Your task to perform on an android device: find which apps use the phone's location Image 0: 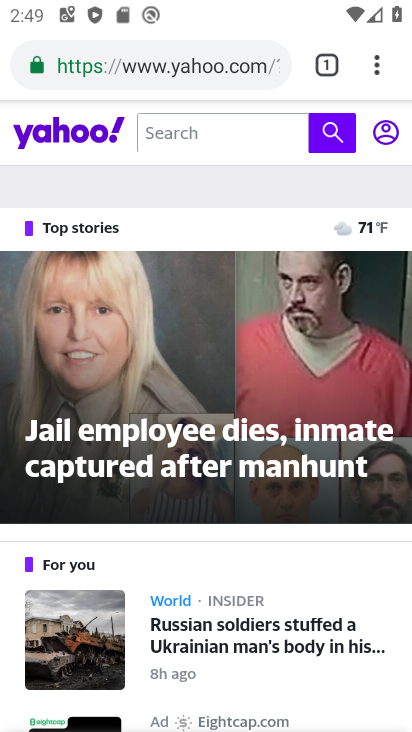
Step 0: press home button
Your task to perform on an android device: find which apps use the phone's location Image 1: 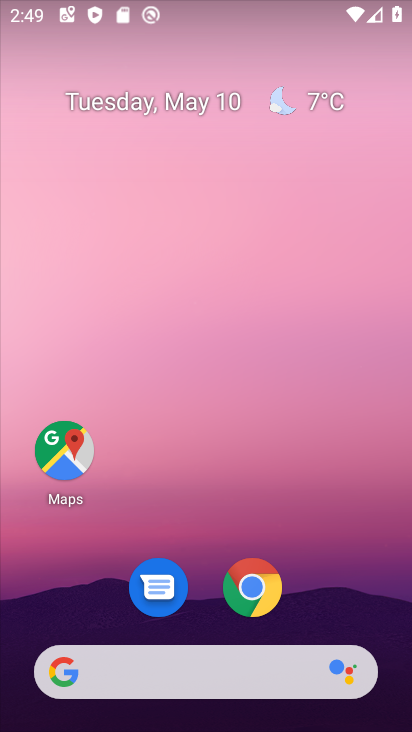
Step 1: drag from (379, 571) to (340, 78)
Your task to perform on an android device: find which apps use the phone's location Image 2: 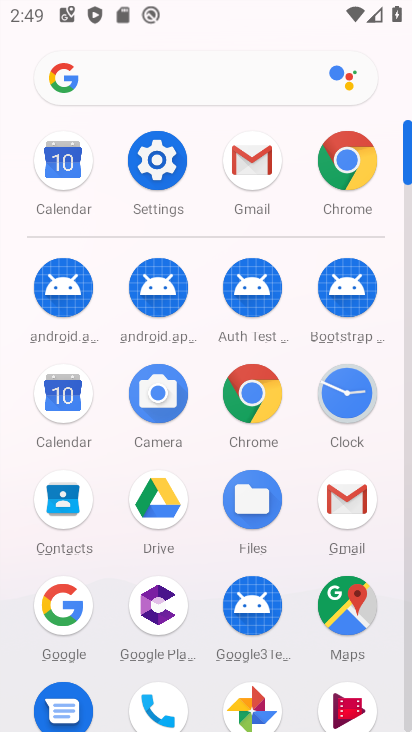
Step 2: click (155, 149)
Your task to perform on an android device: find which apps use the phone's location Image 3: 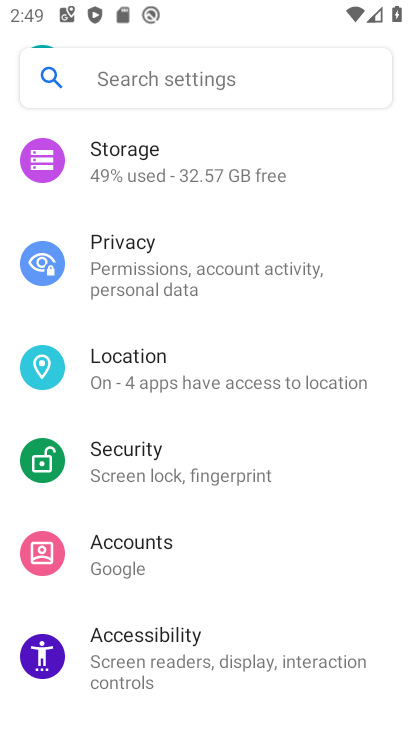
Step 3: drag from (214, 563) to (190, 390)
Your task to perform on an android device: find which apps use the phone's location Image 4: 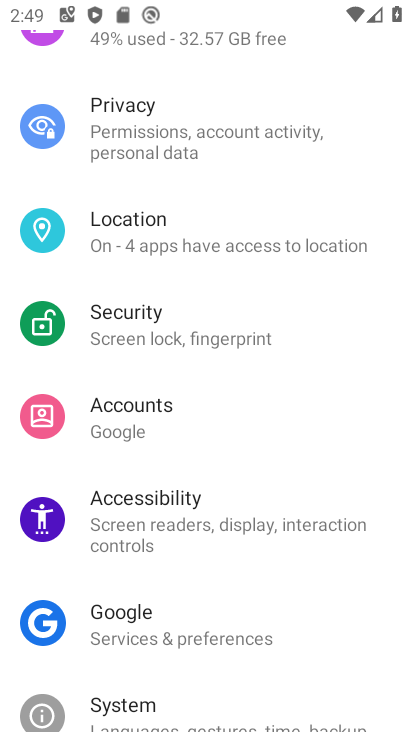
Step 4: drag from (203, 596) to (198, 657)
Your task to perform on an android device: find which apps use the phone's location Image 5: 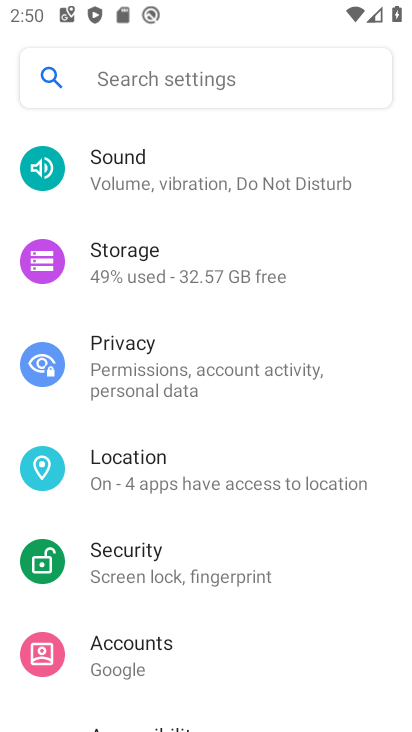
Step 5: drag from (187, 243) to (167, 447)
Your task to perform on an android device: find which apps use the phone's location Image 6: 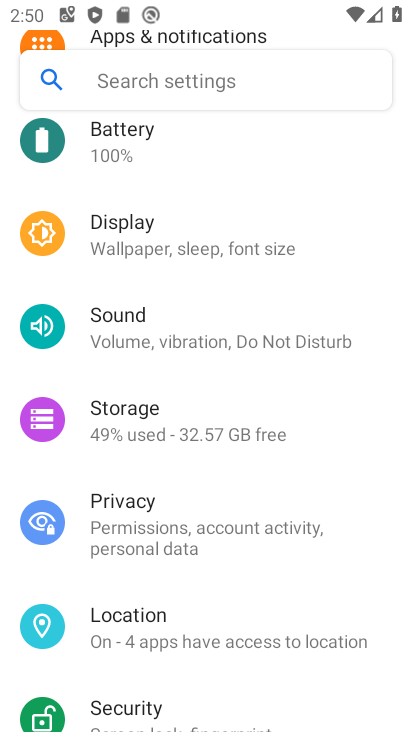
Step 6: drag from (182, 178) to (196, 266)
Your task to perform on an android device: find which apps use the phone's location Image 7: 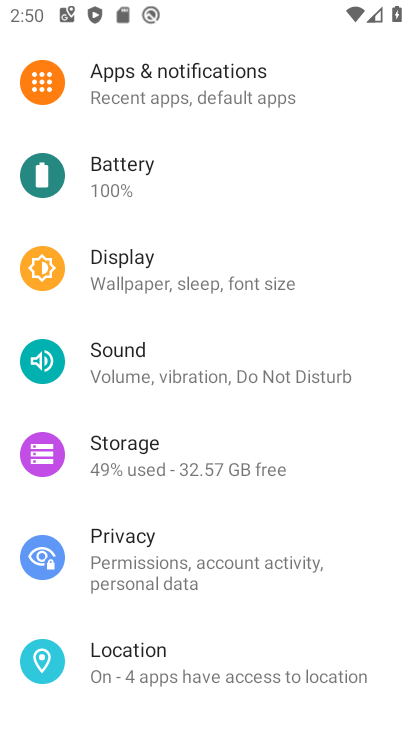
Step 7: drag from (148, 584) to (141, 306)
Your task to perform on an android device: find which apps use the phone's location Image 8: 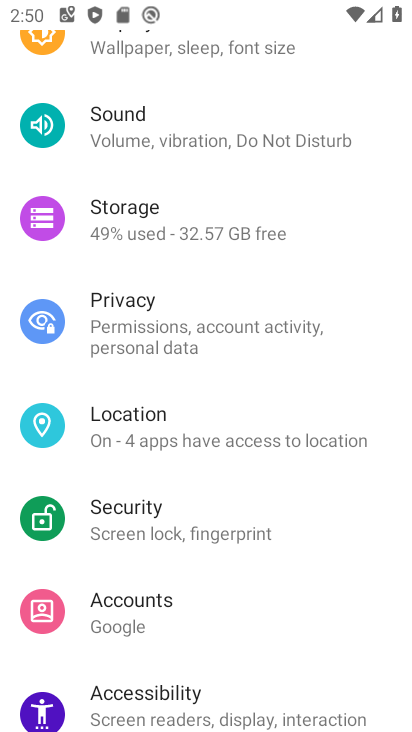
Step 8: click (140, 435)
Your task to perform on an android device: find which apps use the phone's location Image 9: 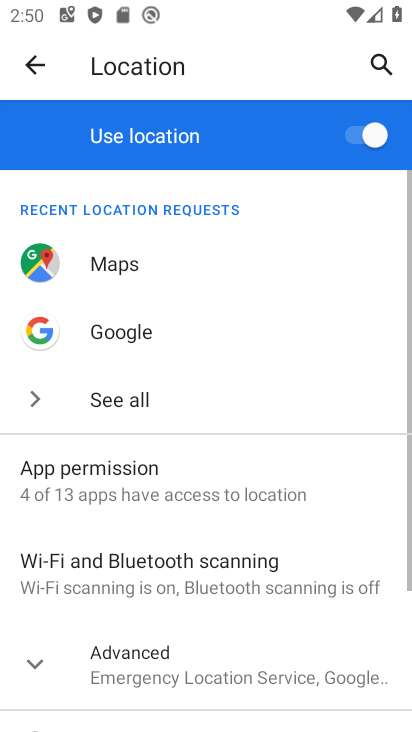
Step 9: click (106, 475)
Your task to perform on an android device: find which apps use the phone's location Image 10: 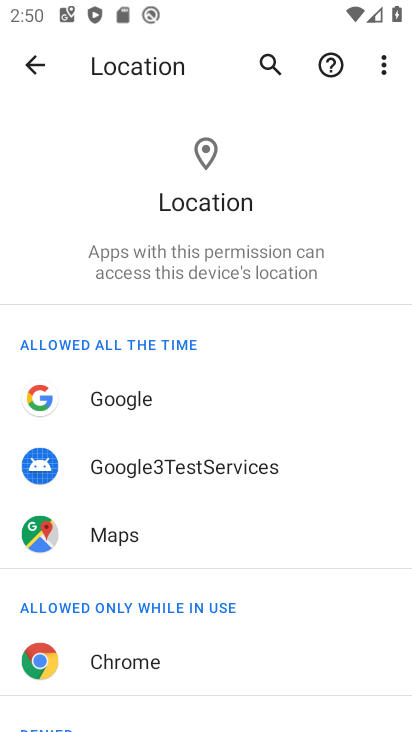
Step 10: task complete